Your task to perform on an android device: open chrome and create a bookmark for the current page Image 0: 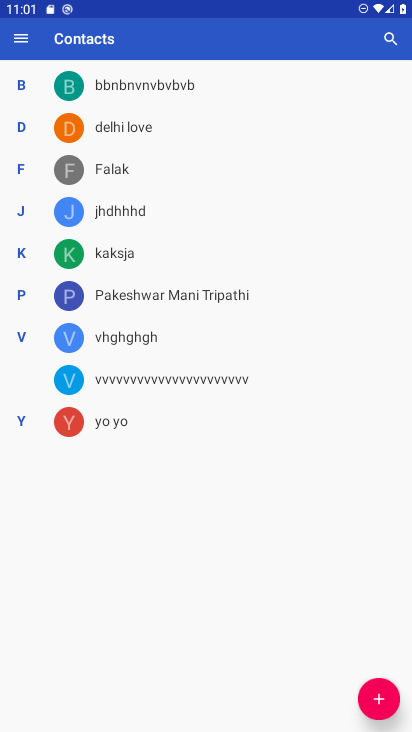
Step 0: press home button
Your task to perform on an android device: open chrome and create a bookmark for the current page Image 1: 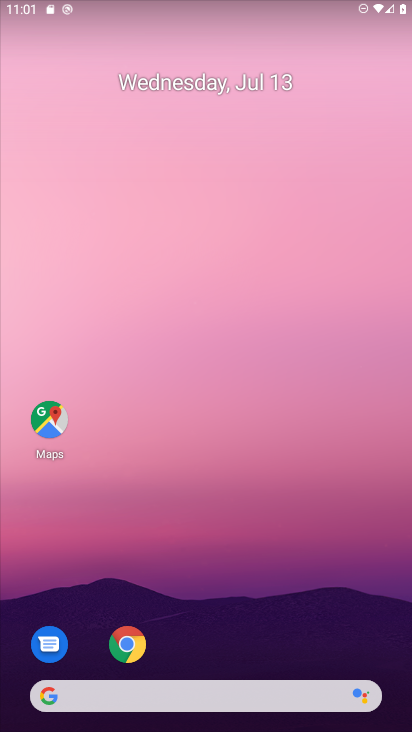
Step 1: click (128, 646)
Your task to perform on an android device: open chrome and create a bookmark for the current page Image 2: 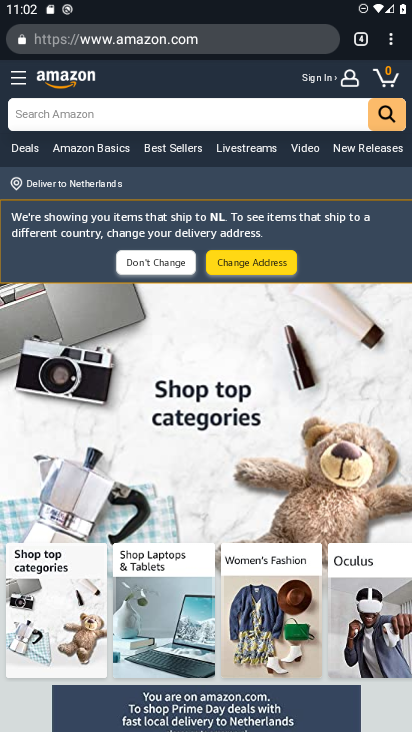
Step 2: click (391, 36)
Your task to perform on an android device: open chrome and create a bookmark for the current page Image 3: 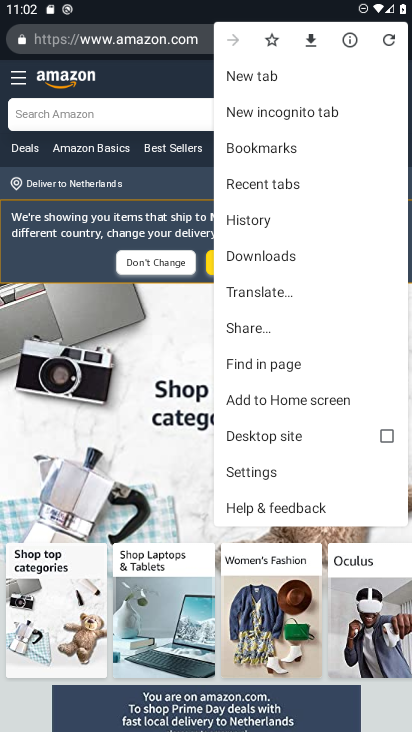
Step 3: click (267, 42)
Your task to perform on an android device: open chrome and create a bookmark for the current page Image 4: 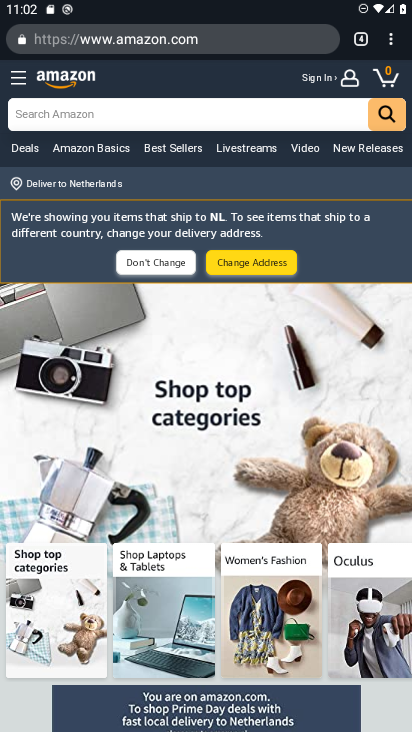
Step 4: task complete